Your task to perform on an android device: change the clock display to analog Image 0: 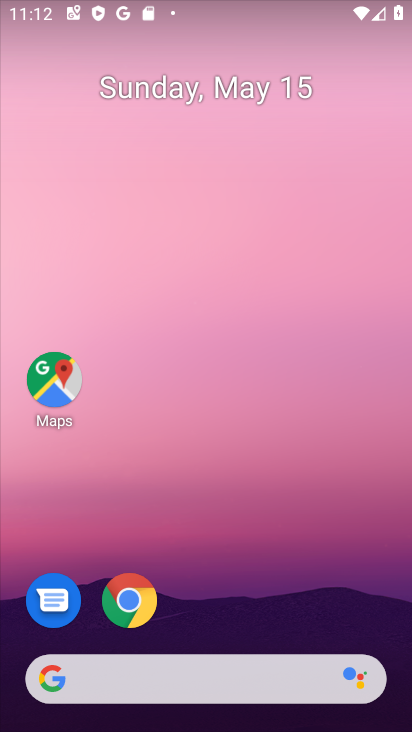
Step 0: drag from (182, 665) to (149, 207)
Your task to perform on an android device: change the clock display to analog Image 1: 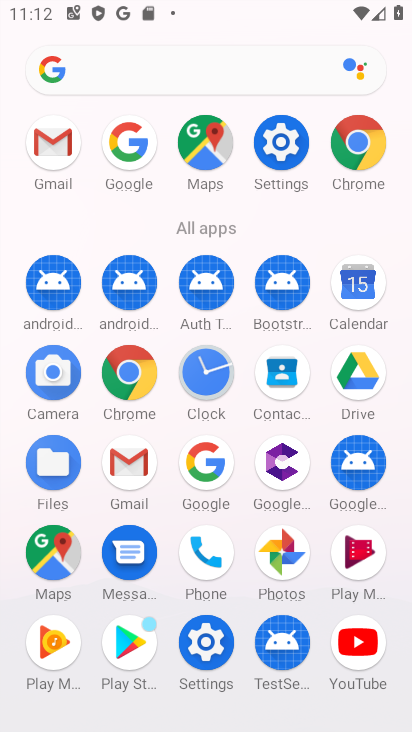
Step 1: click (201, 363)
Your task to perform on an android device: change the clock display to analog Image 2: 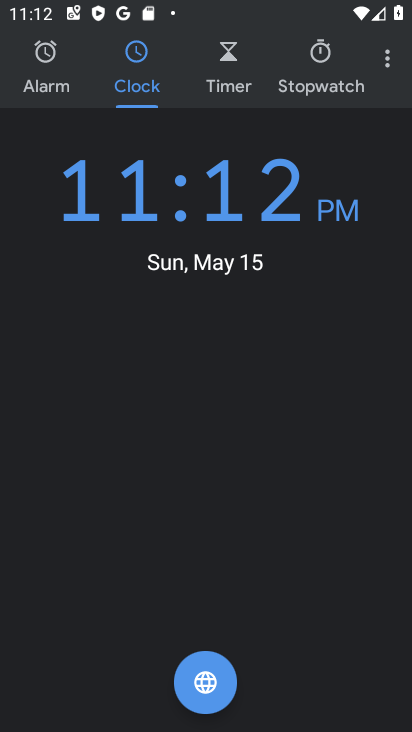
Step 2: click (387, 68)
Your task to perform on an android device: change the clock display to analog Image 3: 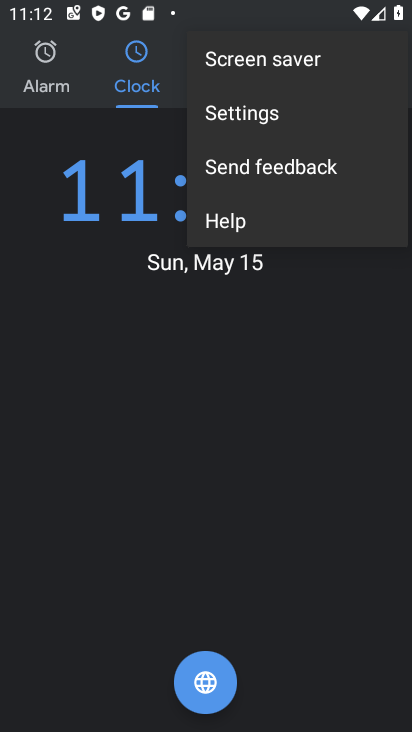
Step 3: click (291, 114)
Your task to perform on an android device: change the clock display to analog Image 4: 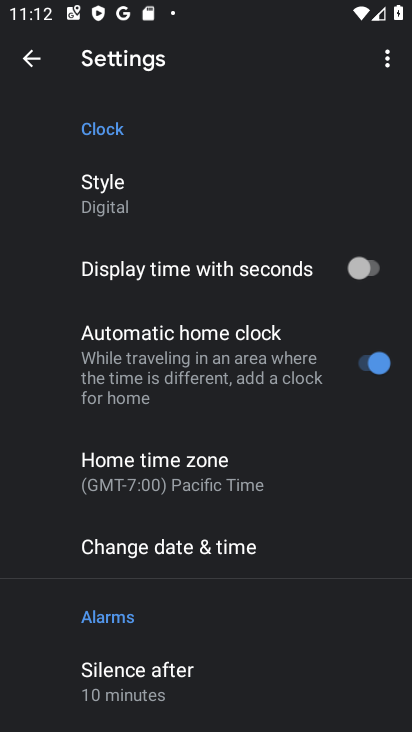
Step 4: click (106, 186)
Your task to perform on an android device: change the clock display to analog Image 5: 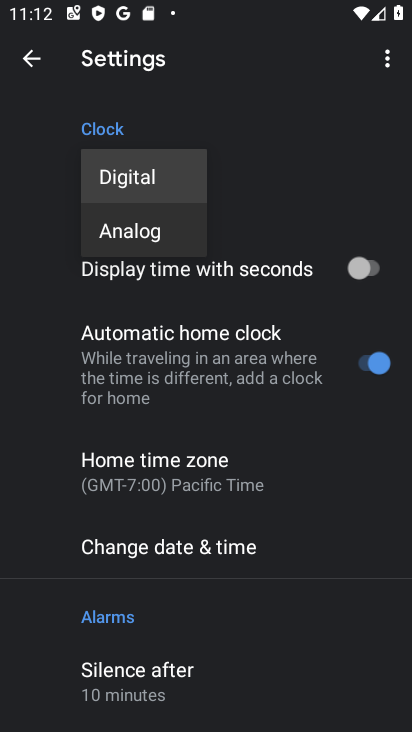
Step 5: click (132, 244)
Your task to perform on an android device: change the clock display to analog Image 6: 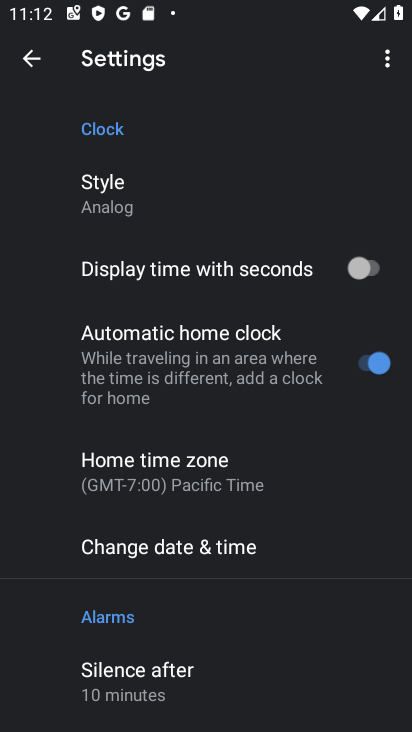
Step 6: task complete